Your task to perform on an android device: Go to Wikipedia Image 0: 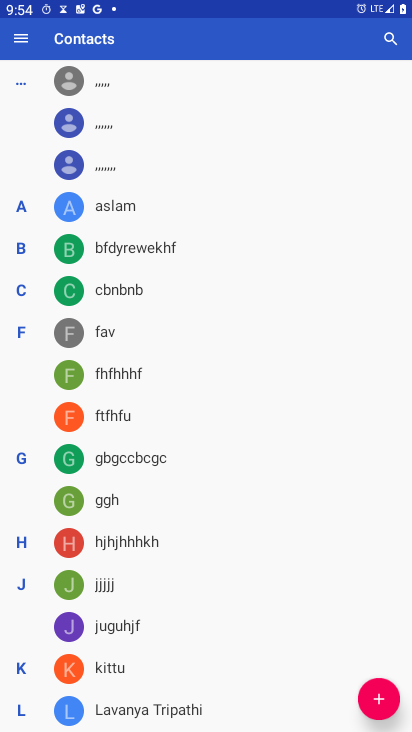
Step 0: press back button
Your task to perform on an android device: Go to Wikipedia Image 1: 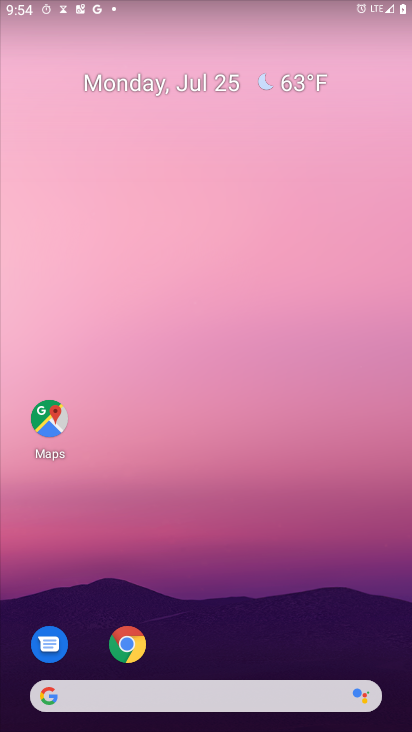
Step 1: drag from (233, 547) to (202, 303)
Your task to perform on an android device: Go to Wikipedia Image 2: 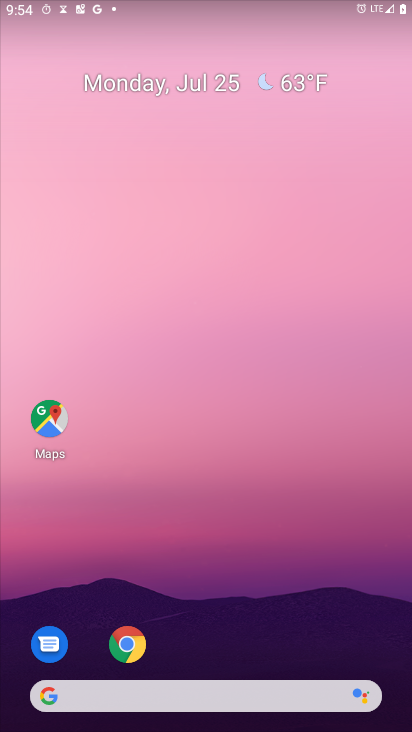
Step 2: drag from (239, 460) to (189, 138)
Your task to perform on an android device: Go to Wikipedia Image 3: 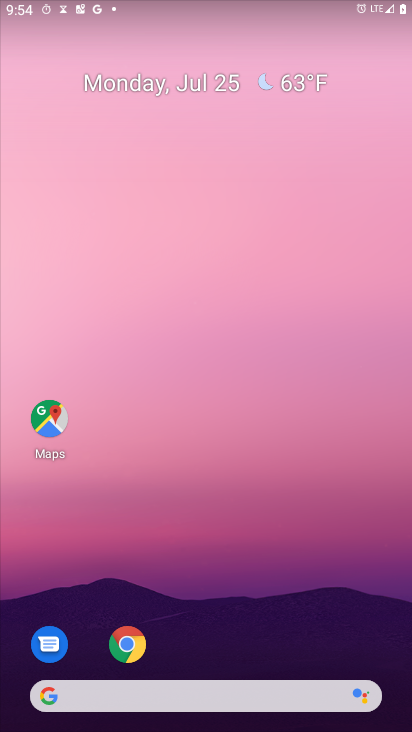
Step 3: drag from (217, 460) to (189, 251)
Your task to perform on an android device: Go to Wikipedia Image 4: 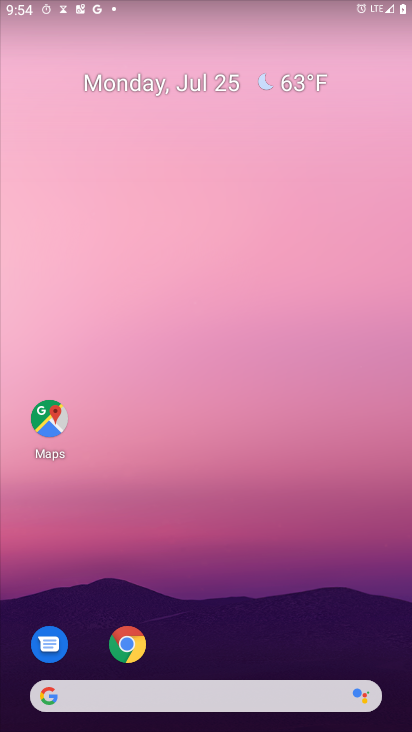
Step 4: drag from (193, 406) to (151, 116)
Your task to perform on an android device: Go to Wikipedia Image 5: 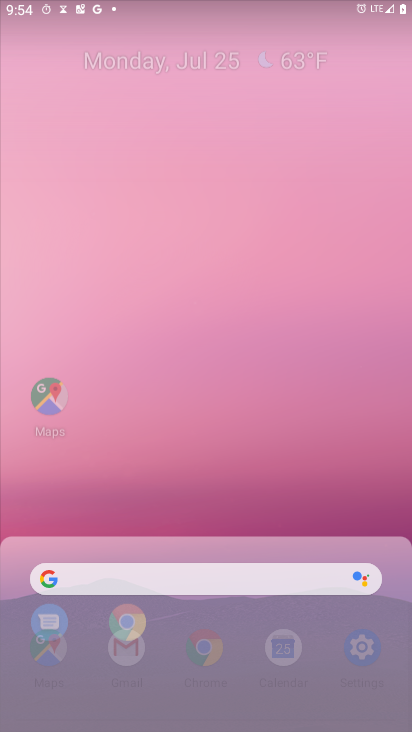
Step 5: drag from (246, 509) to (151, 138)
Your task to perform on an android device: Go to Wikipedia Image 6: 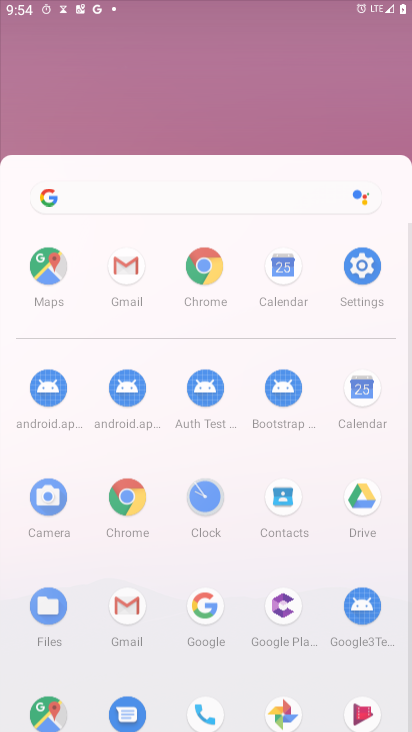
Step 6: click (260, 243)
Your task to perform on an android device: Go to Wikipedia Image 7: 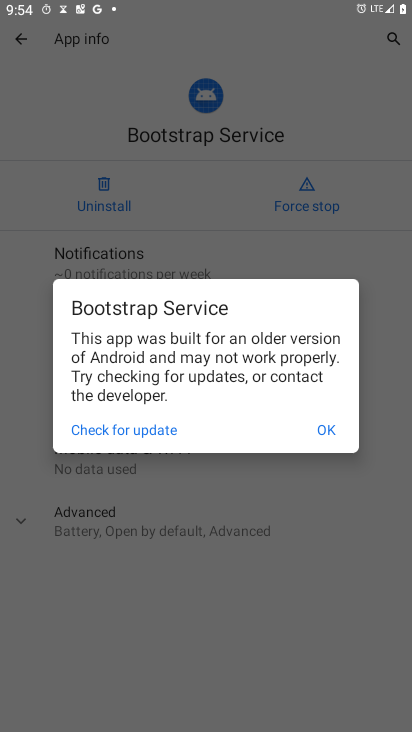
Step 7: click (322, 425)
Your task to perform on an android device: Go to Wikipedia Image 8: 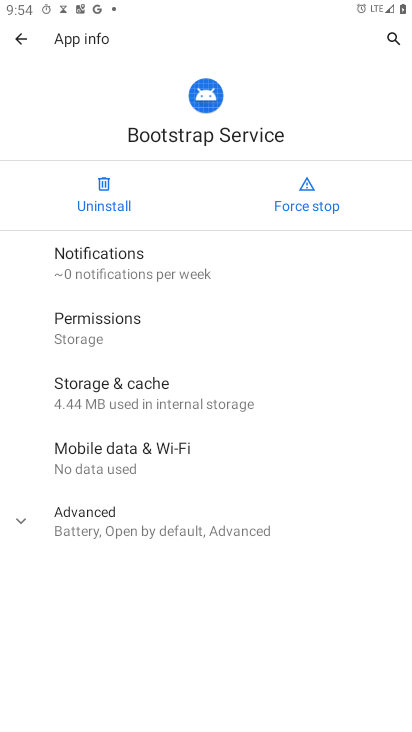
Step 8: click (14, 39)
Your task to perform on an android device: Go to Wikipedia Image 9: 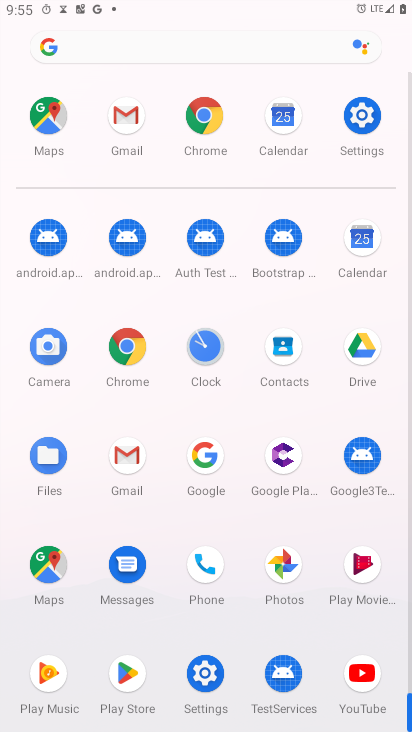
Step 9: click (131, 351)
Your task to perform on an android device: Go to Wikipedia Image 10: 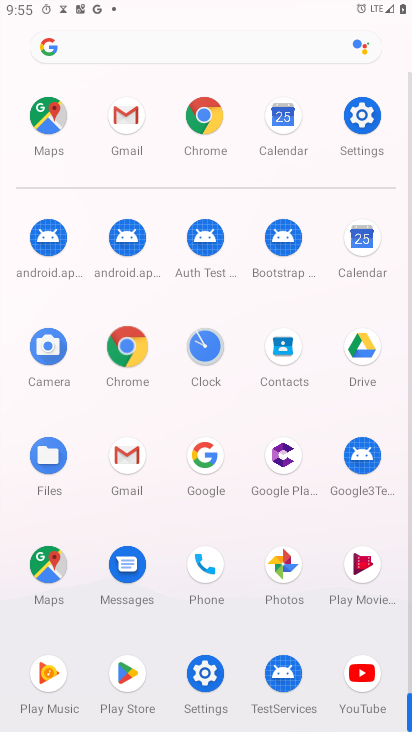
Step 10: click (135, 342)
Your task to perform on an android device: Go to Wikipedia Image 11: 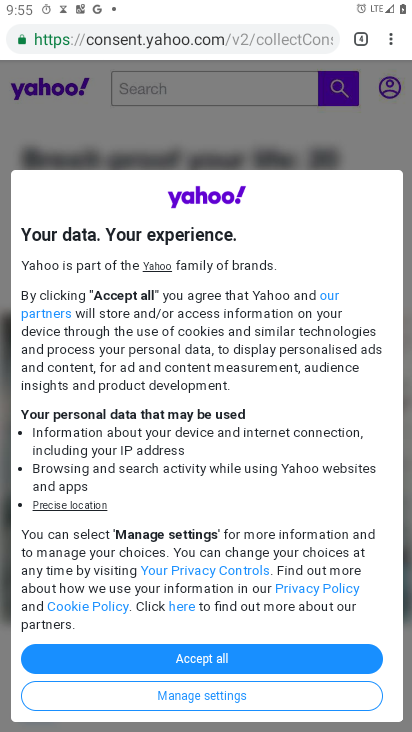
Step 11: click (397, 32)
Your task to perform on an android device: Go to Wikipedia Image 12: 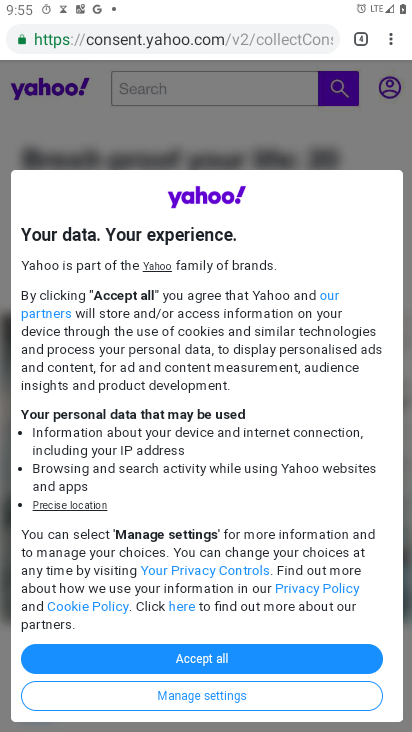
Step 12: drag from (391, 30) to (260, 73)
Your task to perform on an android device: Go to Wikipedia Image 13: 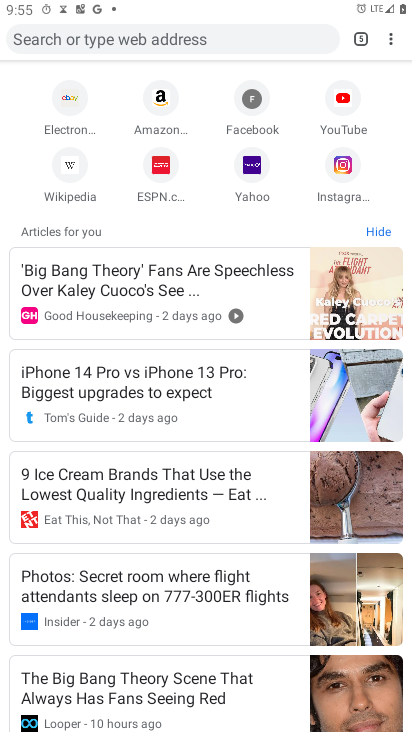
Step 13: click (54, 161)
Your task to perform on an android device: Go to Wikipedia Image 14: 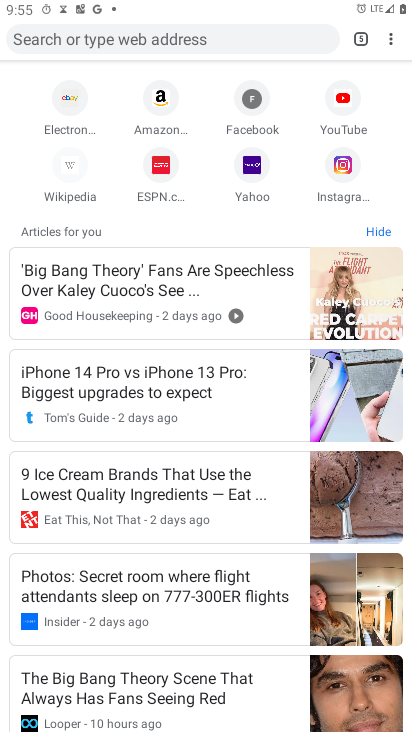
Step 14: click (61, 156)
Your task to perform on an android device: Go to Wikipedia Image 15: 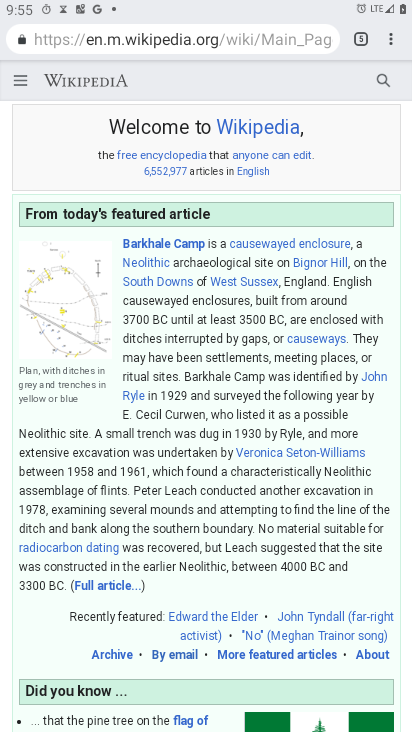
Step 15: task complete